Your task to perform on an android device: What's the weather going to be this weekend? Image 0: 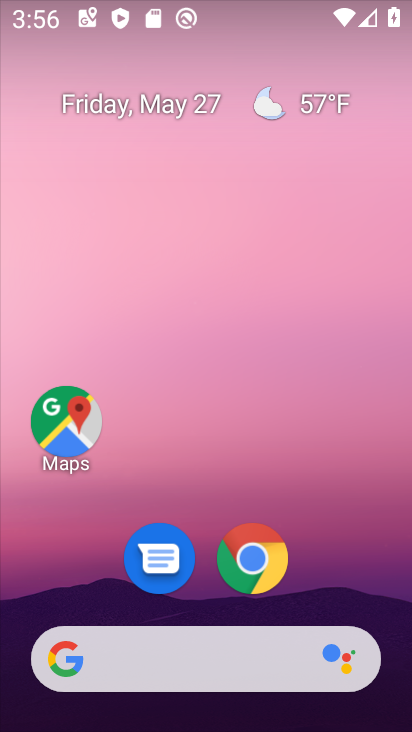
Step 0: drag from (386, 563) to (252, 16)
Your task to perform on an android device: What's the weather going to be this weekend? Image 1: 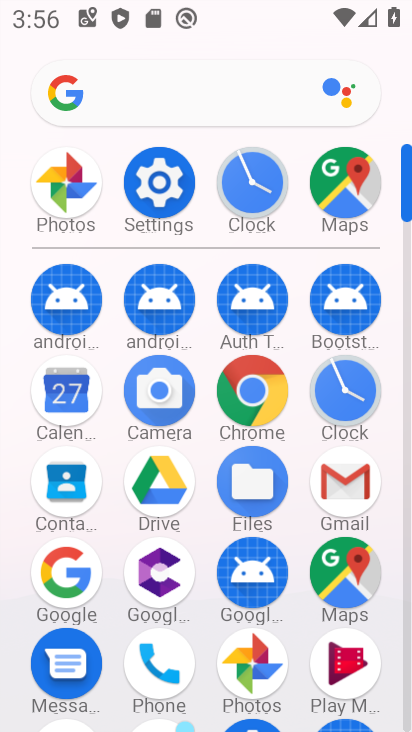
Step 1: click (93, 383)
Your task to perform on an android device: What's the weather going to be this weekend? Image 2: 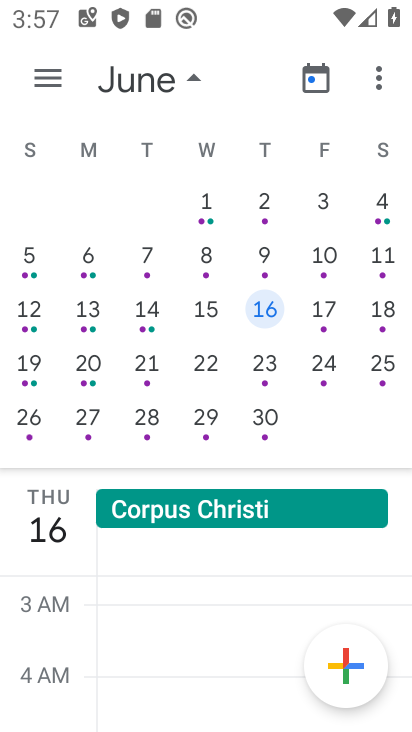
Step 2: task complete